Your task to perform on an android device: delete the emails in spam in the gmail app Image 0: 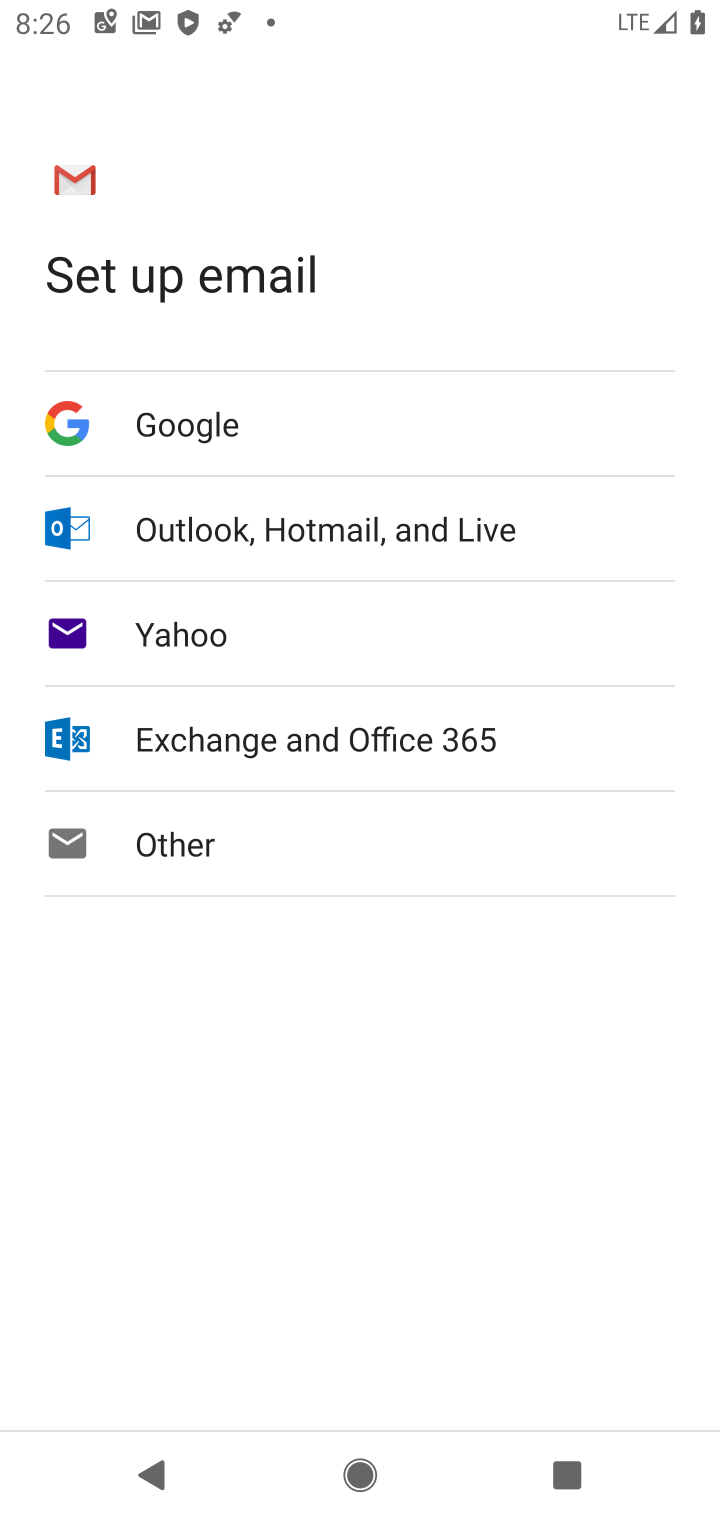
Step 0: press home button
Your task to perform on an android device: delete the emails in spam in the gmail app Image 1: 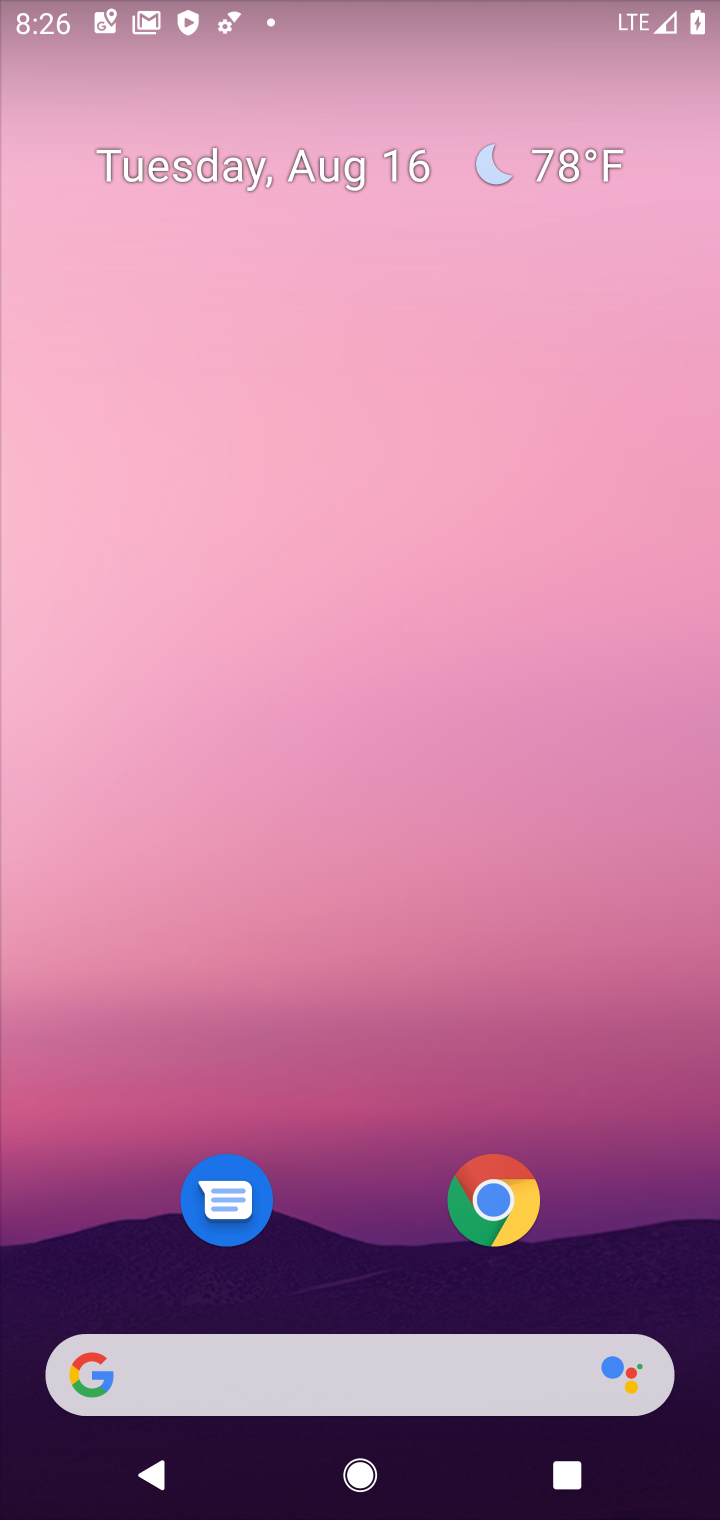
Step 1: drag from (683, 1285) to (622, 113)
Your task to perform on an android device: delete the emails in spam in the gmail app Image 2: 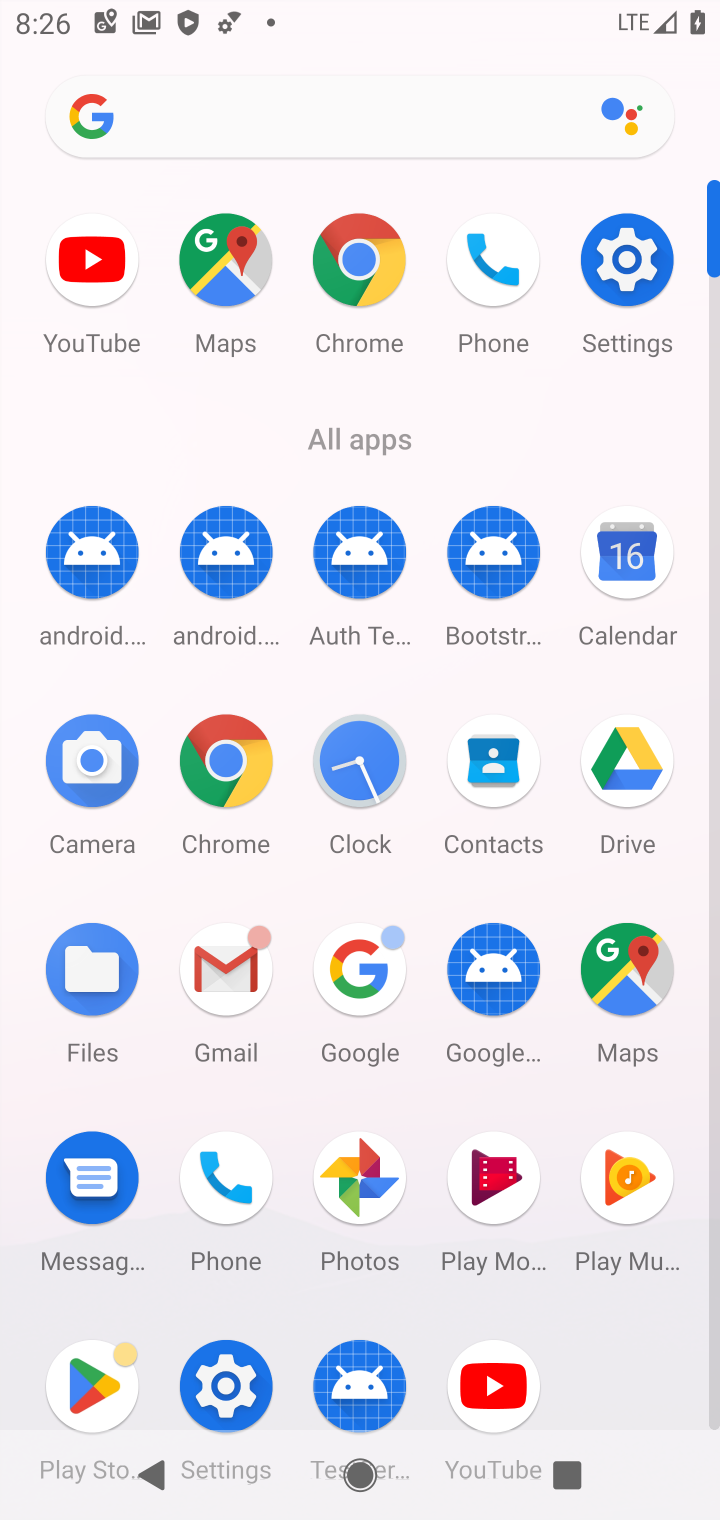
Step 2: click (224, 974)
Your task to perform on an android device: delete the emails in spam in the gmail app Image 3: 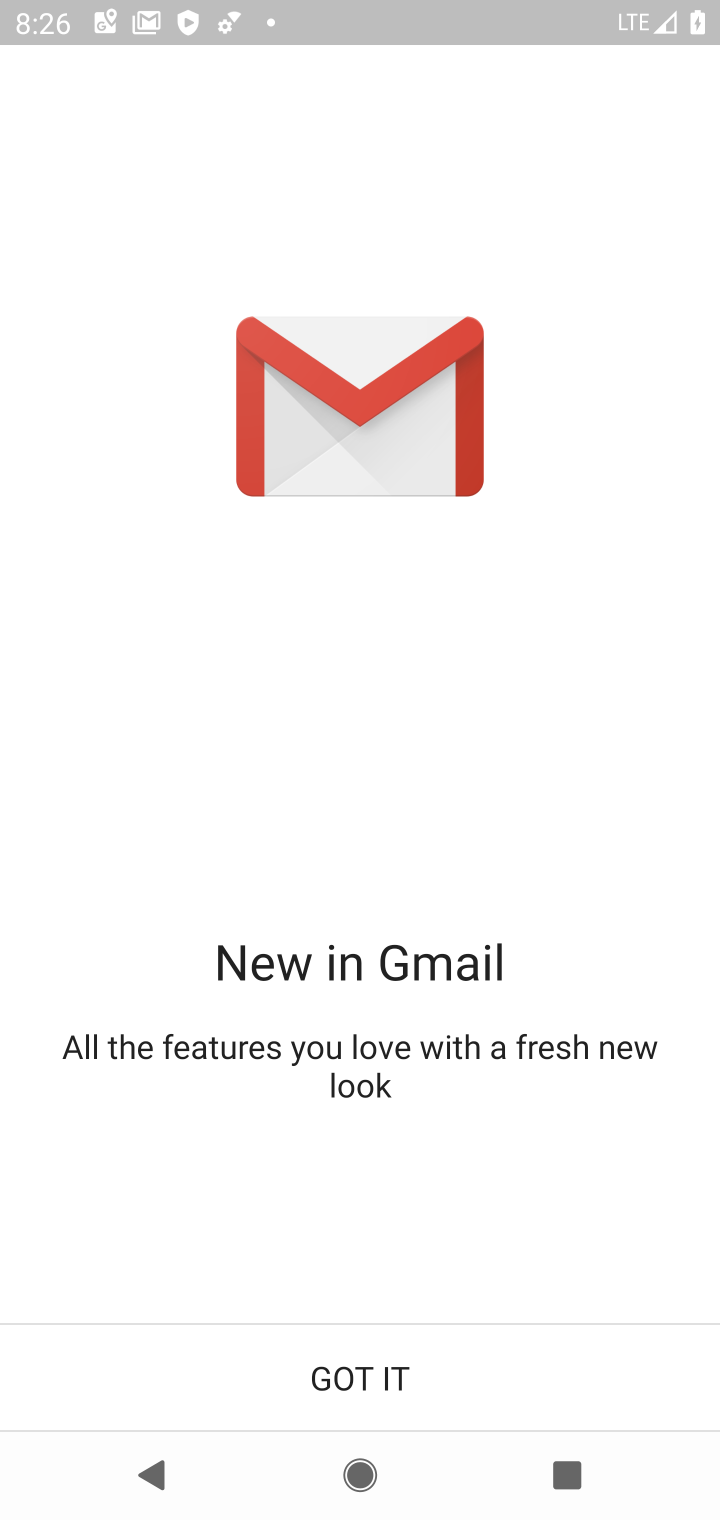
Step 3: click (373, 1361)
Your task to perform on an android device: delete the emails in spam in the gmail app Image 4: 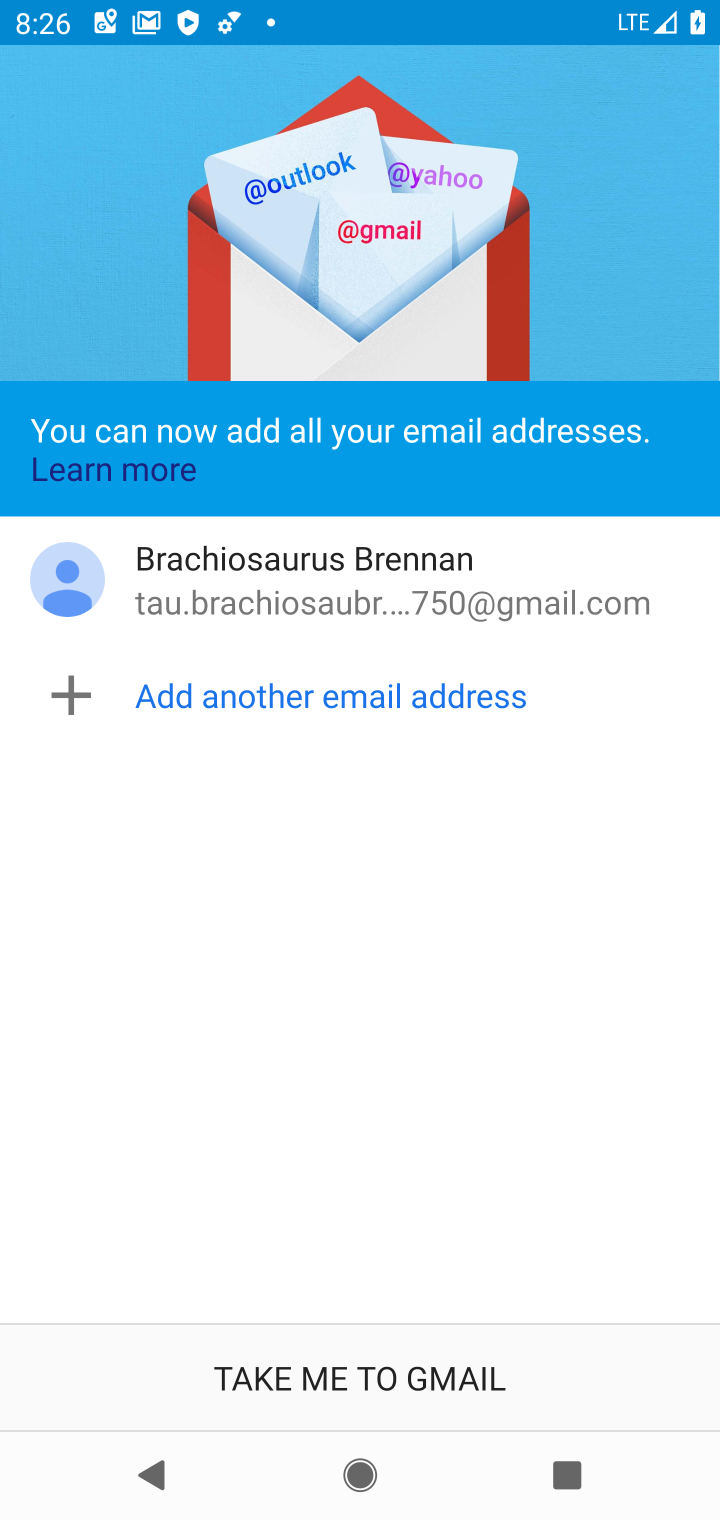
Step 4: click (373, 1361)
Your task to perform on an android device: delete the emails in spam in the gmail app Image 5: 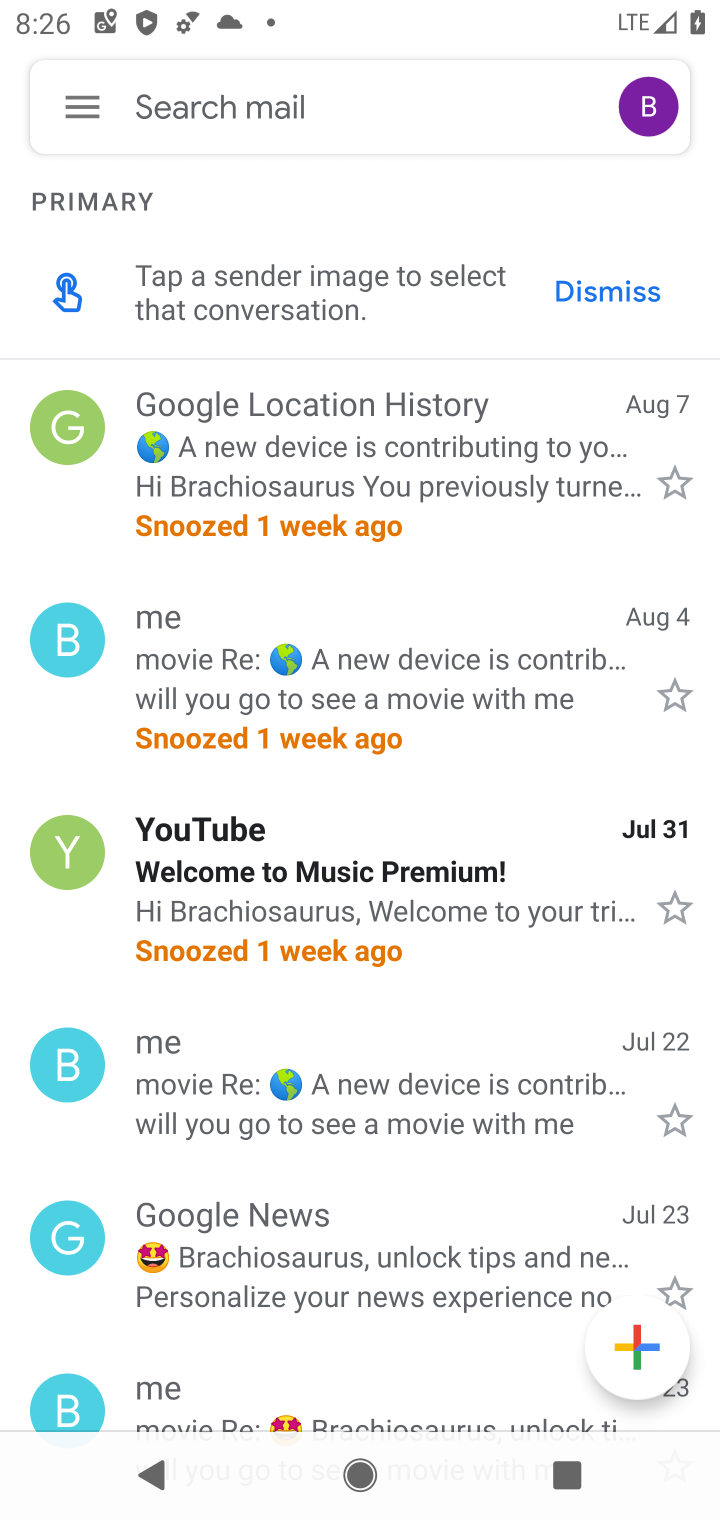
Step 5: click (75, 103)
Your task to perform on an android device: delete the emails in spam in the gmail app Image 6: 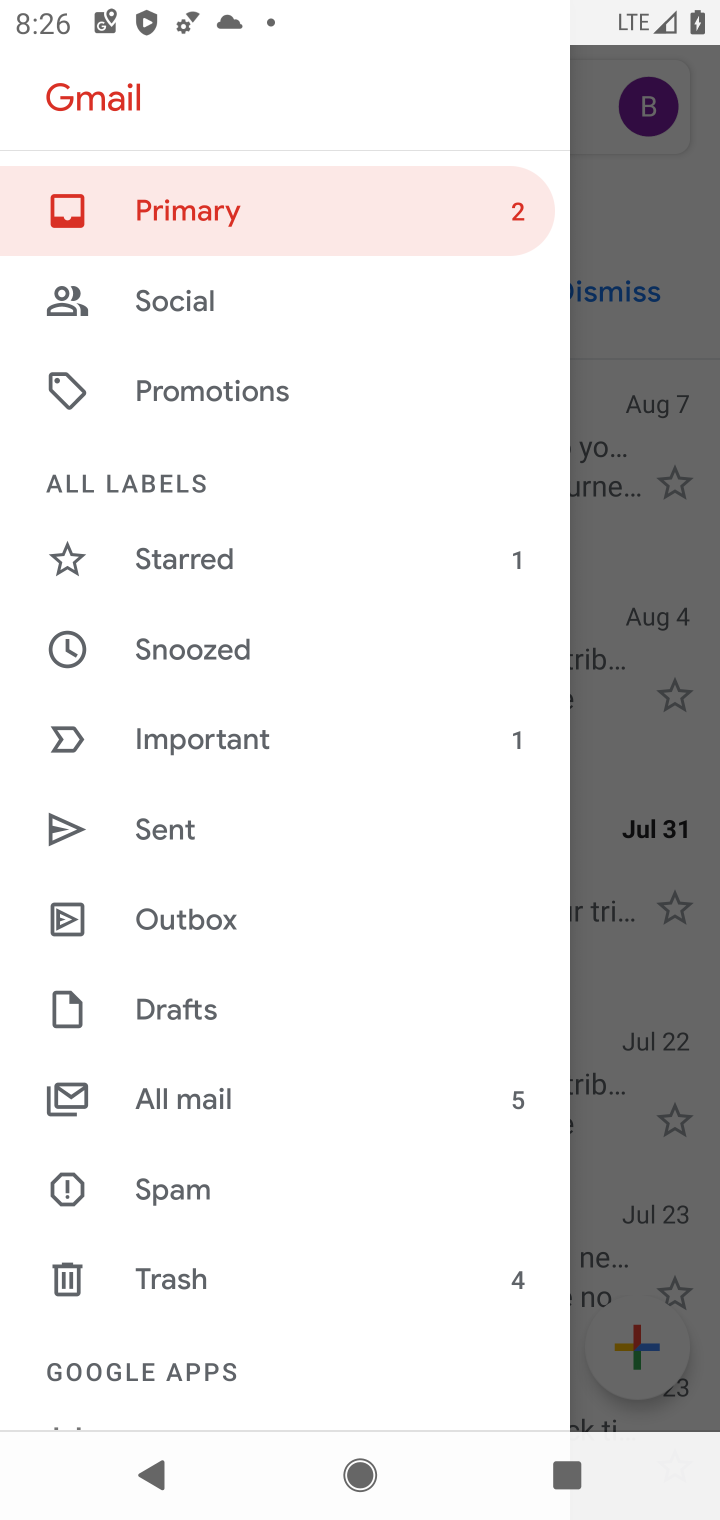
Step 6: click (167, 1194)
Your task to perform on an android device: delete the emails in spam in the gmail app Image 7: 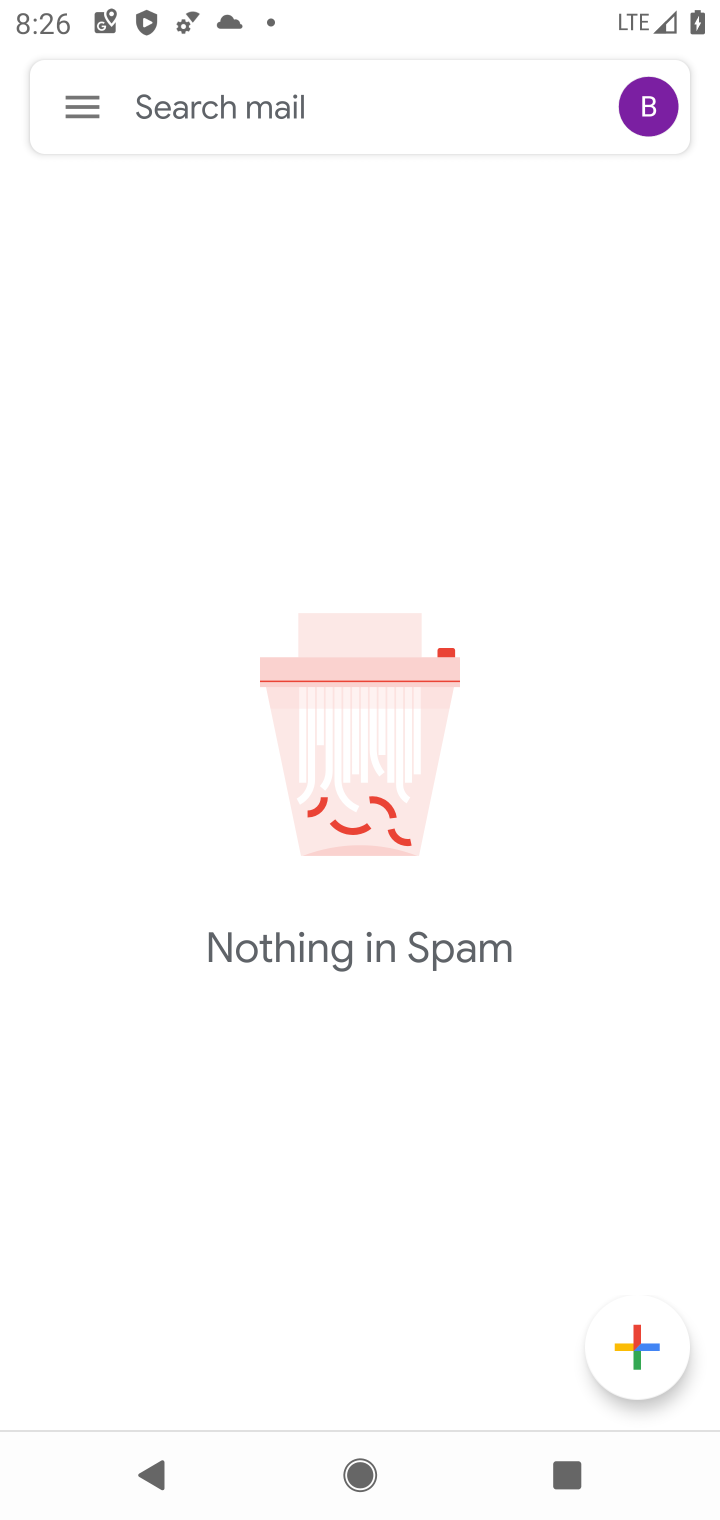
Step 7: task complete